Your task to perform on an android device: What's the weather? Image 0: 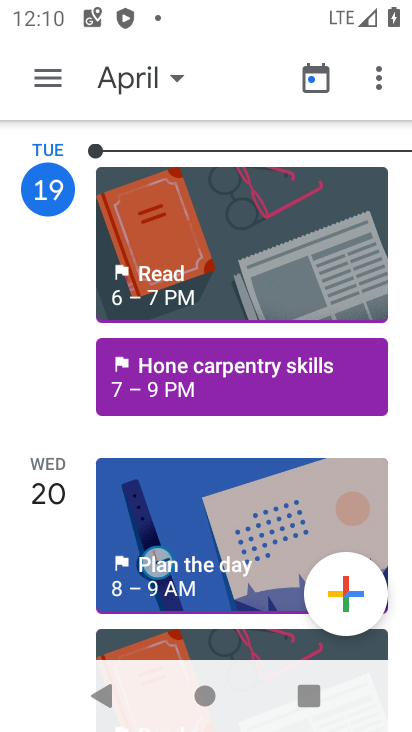
Step 0: press back button
Your task to perform on an android device: What's the weather? Image 1: 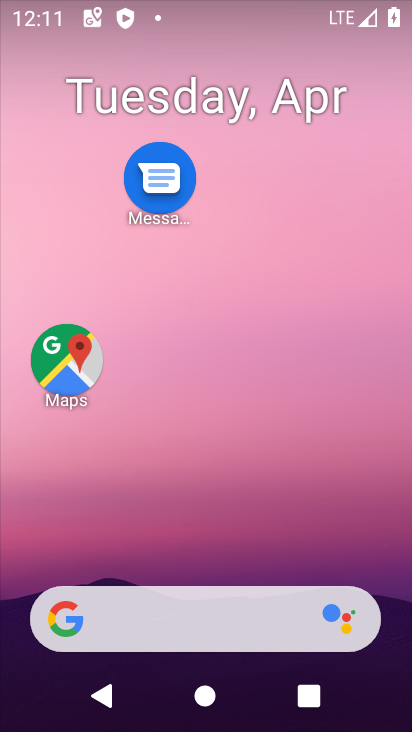
Step 1: drag from (207, 722) to (207, 45)
Your task to perform on an android device: What's the weather? Image 2: 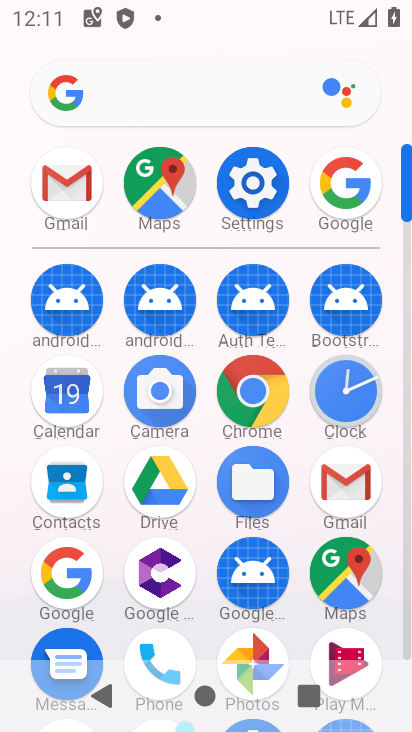
Step 2: click (61, 575)
Your task to perform on an android device: What's the weather? Image 3: 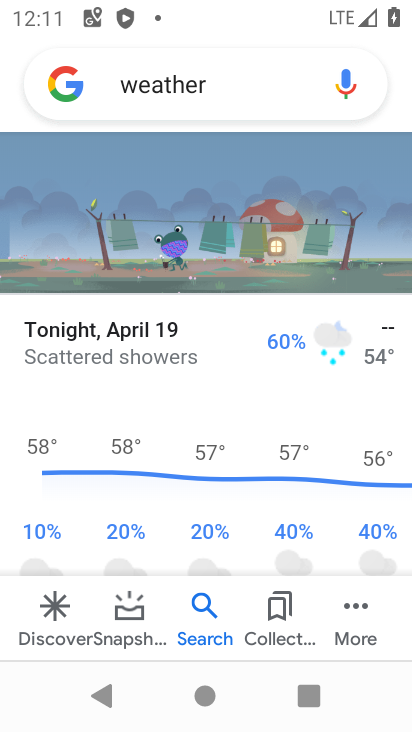
Step 3: task complete